Your task to perform on an android device: visit the assistant section in the google photos Image 0: 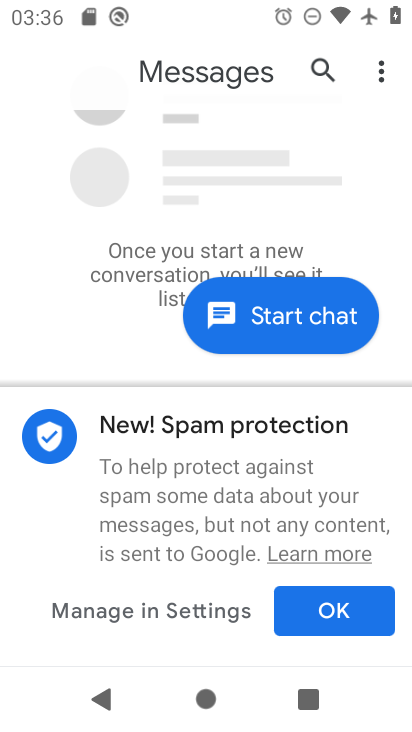
Step 0: press home button
Your task to perform on an android device: visit the assistant section in the google photos Image 1: 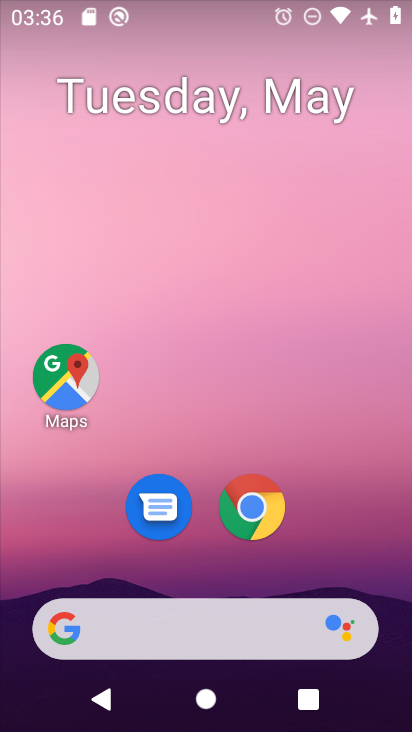
Step 1: drag from (184, 581) to (217, 205)
Your task to perform on an android device: visit the assistant section in the google photos Image 2: 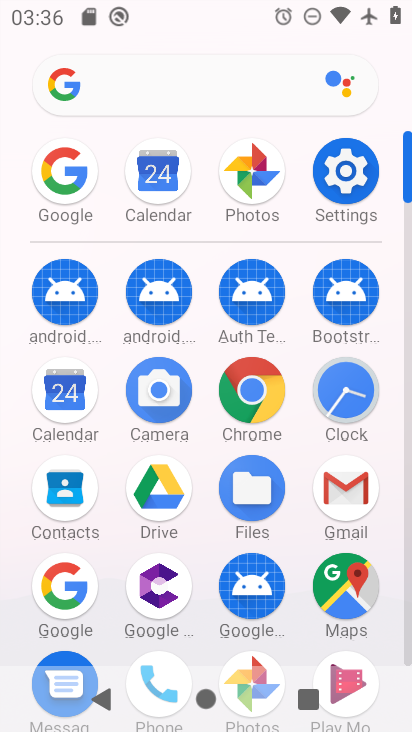
Step 2: click (241, 172)
Your task to perform on an android device: visit the assistant section in the google photos Image 3: 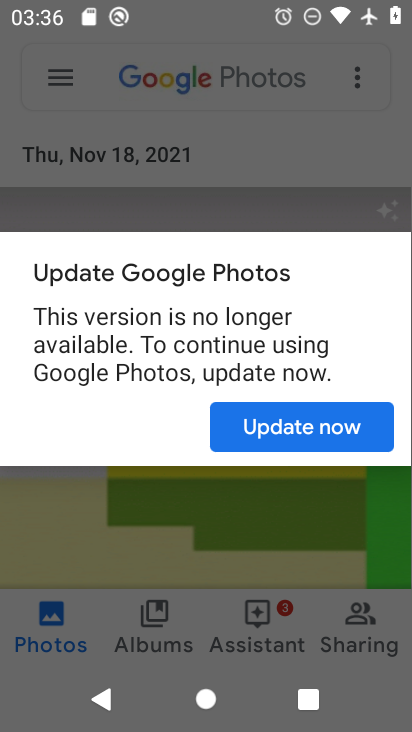
Step 3: click (264, 430)
Your task to perform on an android device: visit the assistant section in the google photos Image 4: 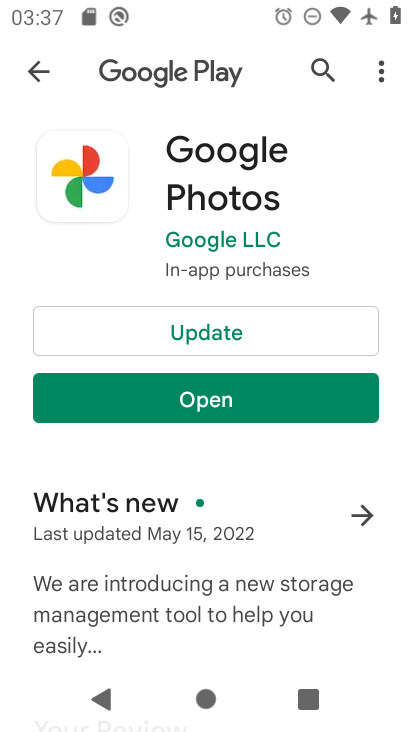
Step 4: click (185, 391)
Your task to perform on an android device: visit the assistant section in the google photos Image 5: 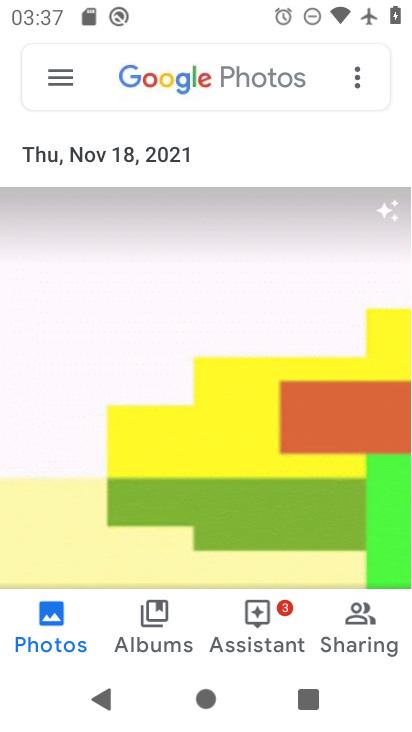
Step 5: click (234, 615)
Your task to perform on an android device: visit the assistant section in the google photos Image 6: 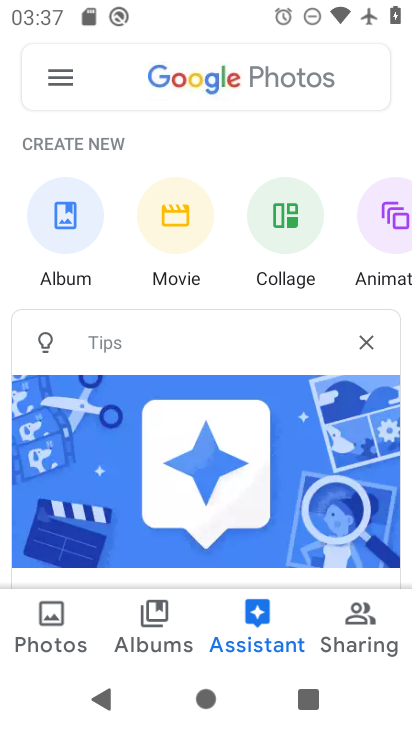
Step 6: task complete